Your task to perform on an android device: set an alarm Image 0: 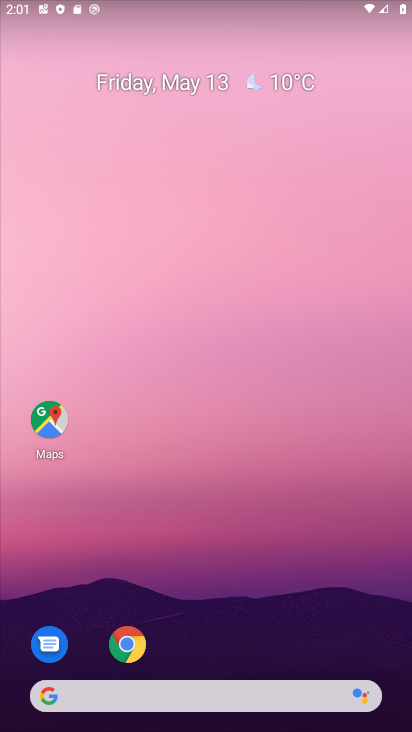
Step 0: drag from (199, 727) to (230, 169)
Your task to perform on an android device: set an alarm Image 1: 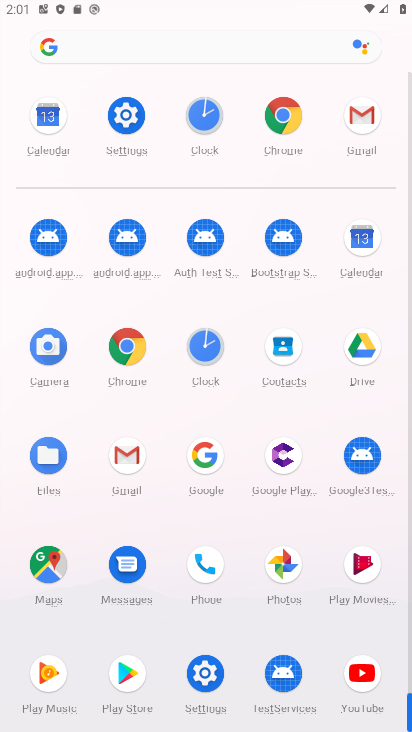
Step 1: click (205, 116)
Your task to perform on an android device: set an alarm Image 2: 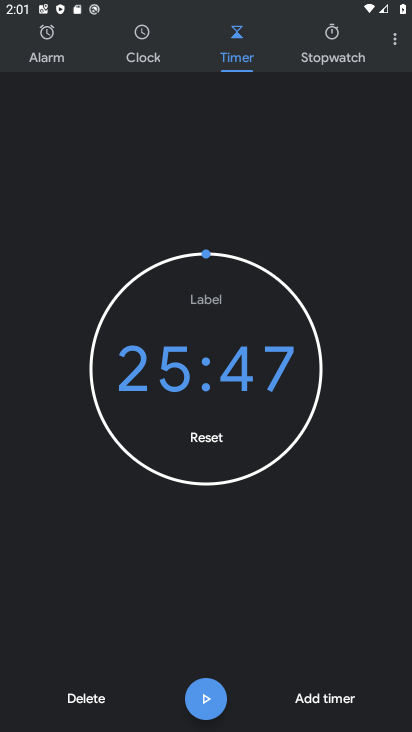
Step 2: click (38, 53)
Your task to perform on an android device: set an alarm Image 3: 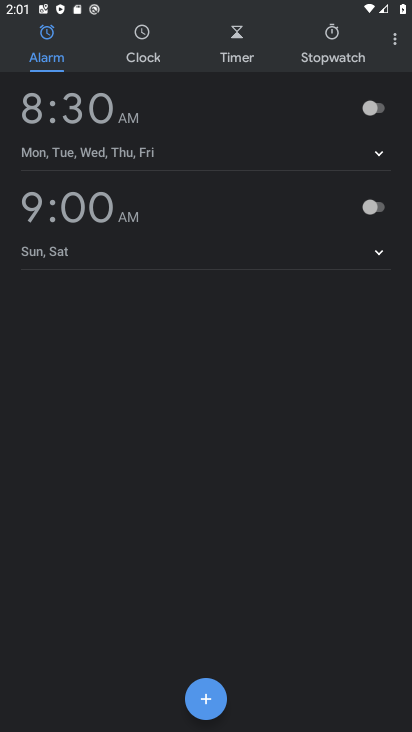
Step 3: click (200, 698)
Your task to perform on an android device: set an alarm Image 4: 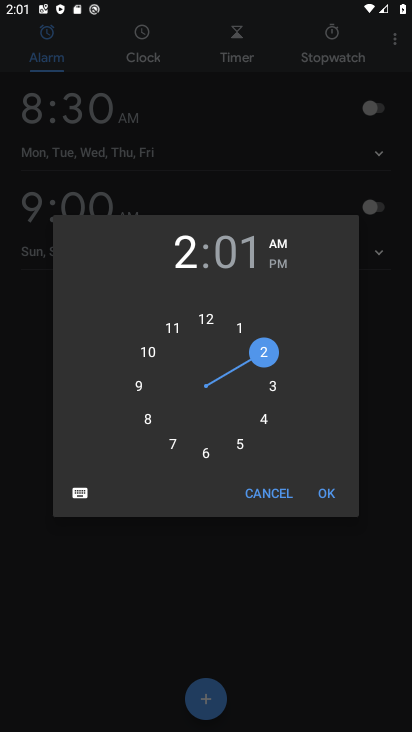
Step 4: click (201, 455)
Your task to perform on an android device: set an alarm Image 5: 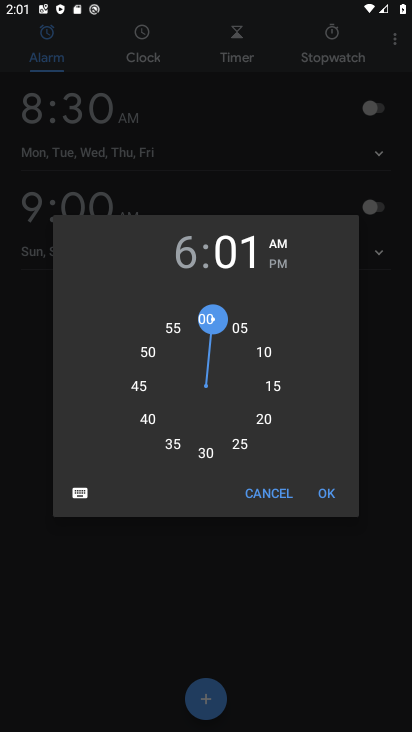
Step 5: click (247, 445)
Your task to perform on an android device: set an alarm Image 6: 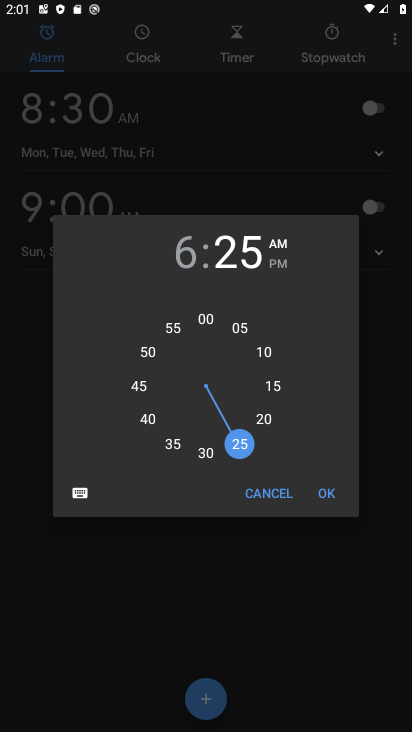
Step 6: click (333, 492)
Your task to perform on an android device: set an alarm Image 7: 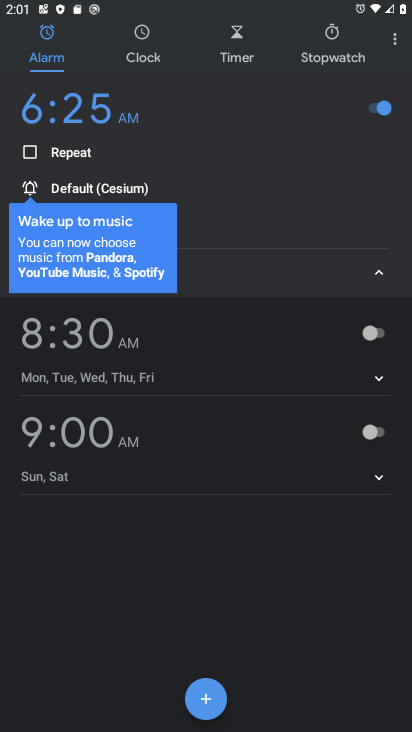
Step 7: task complete